Your task to perform on an android device: find photos in the google photos app Image 0: 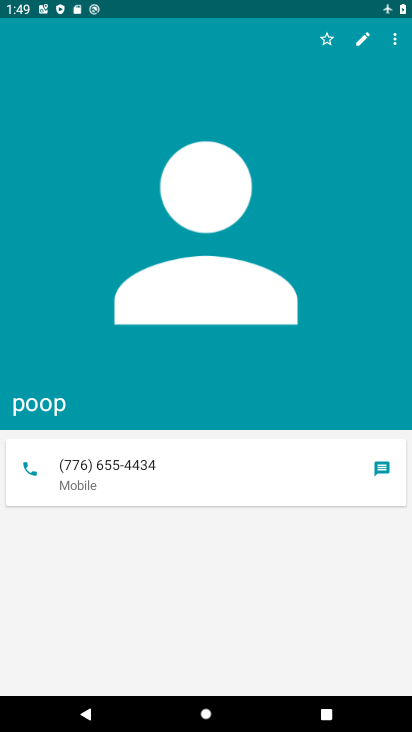
Step 0: press home button
Your task to perform on an android device: find photos in the google photos app Image 1: 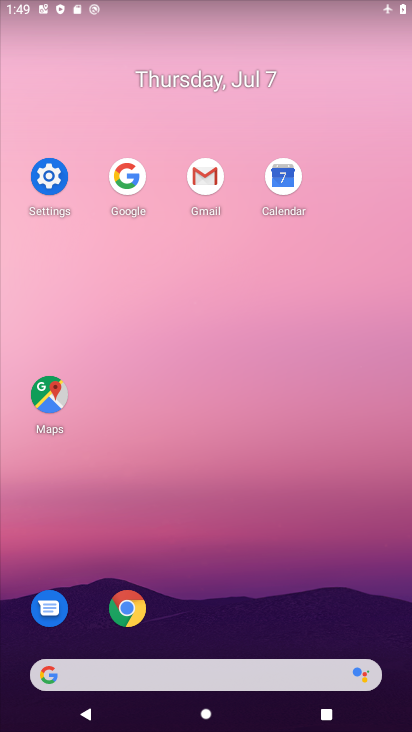
Step 1: drag from (268, 563) to (194, 80)
Your task to perform on an android device: find photos in the google photos app Image 2: 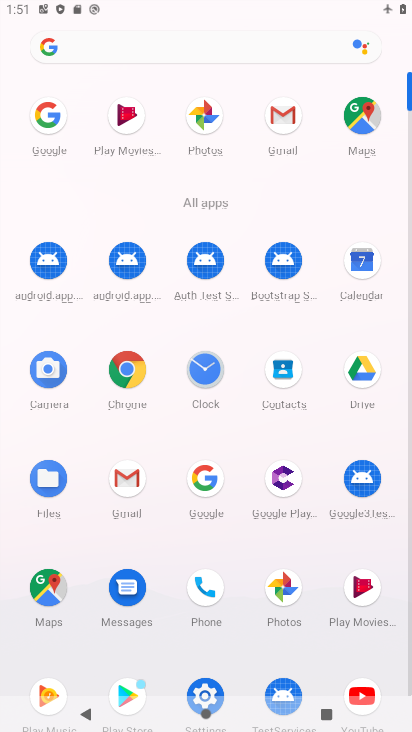
Step 2: click (209, 124)
Your task to perform on an android device: find photos in the google photos app Image 3: 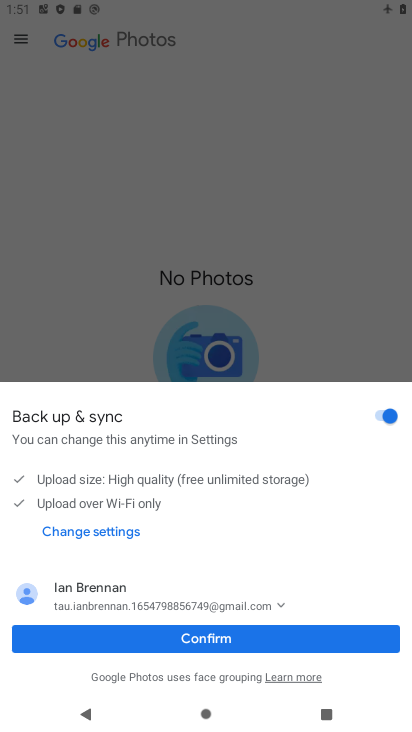
Step 3: click (296, 626)
Your task to perform on an android device: find photos in the google photos app Image 4: 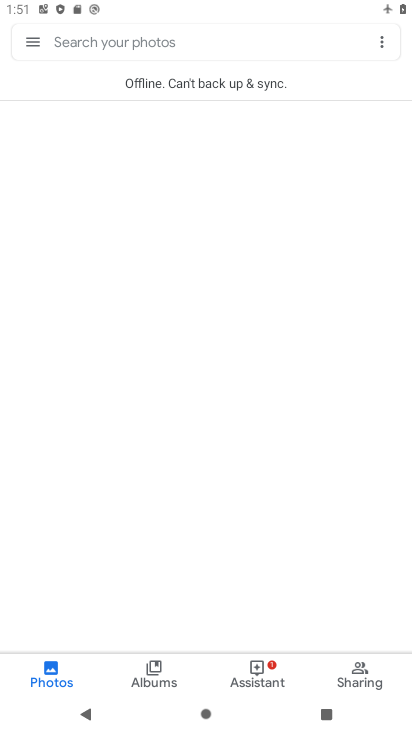
Step 4: task complete